Your task to perform on an android device: Open Google Chrome Image 0: 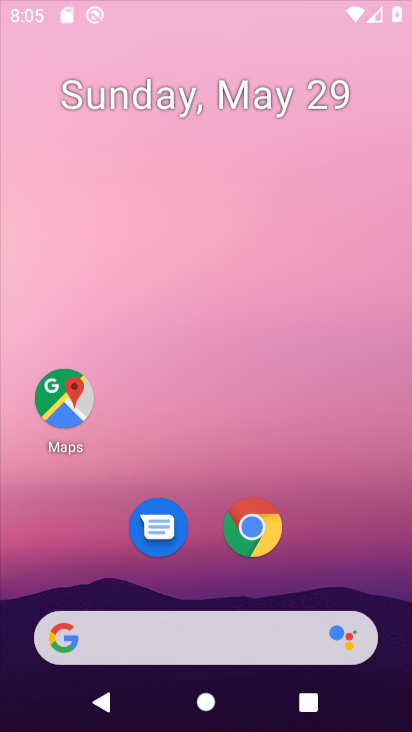
Step 0: press home button
Your task to perform on an android device: Open Google Chrome Image 1: 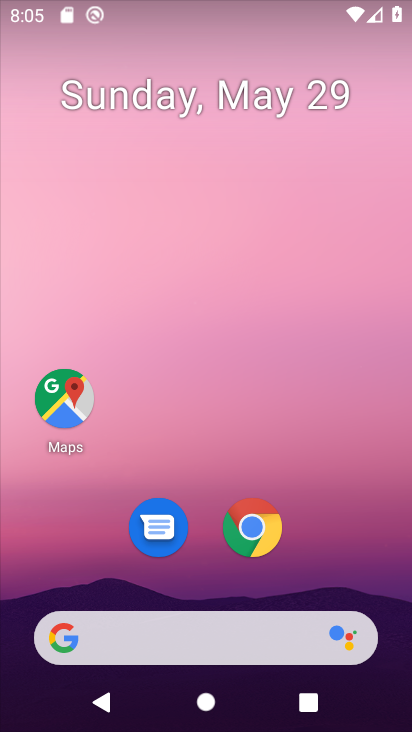
Step 1: click (249, 521)
Your task to perform on an android device: Open Google Chrome Image 2: 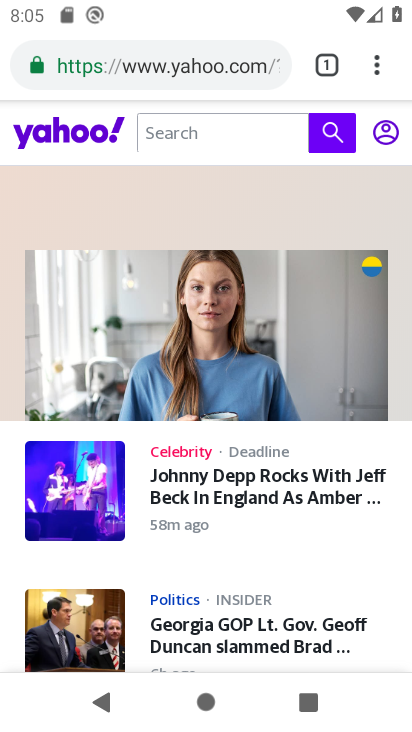
Step 2: press home button
Your task to perform on an android device: Open Google Chrome Image 3: 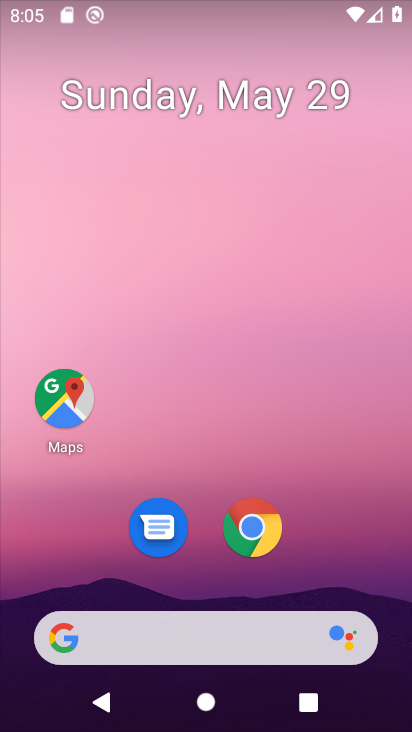
Step 3: click (247, 520)
Your task to perform on an android device: Open Google Chrome Image 4: 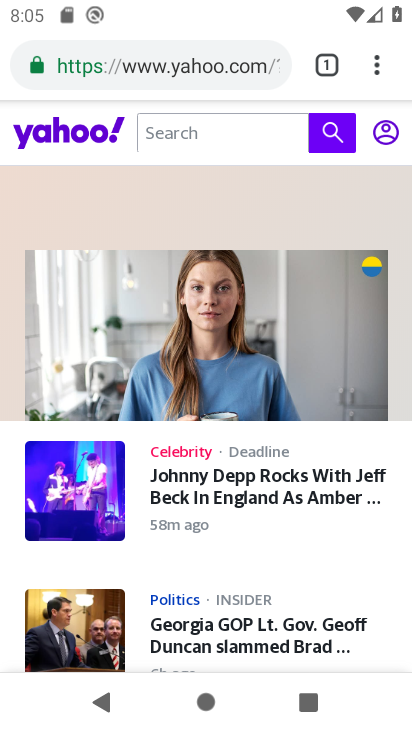
Step 4: click (326, 60)
Your task to perform on an android device: Open Google Chrome Image 5: 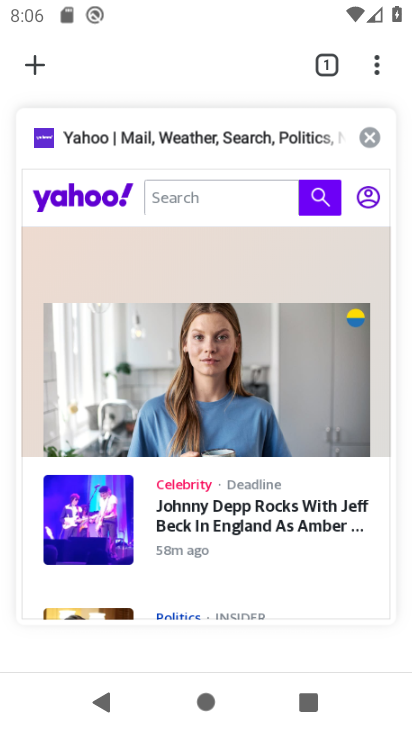
Step 5: click (370, 139)
Your task to perform on an android device: Open Google Chrome Image 6: 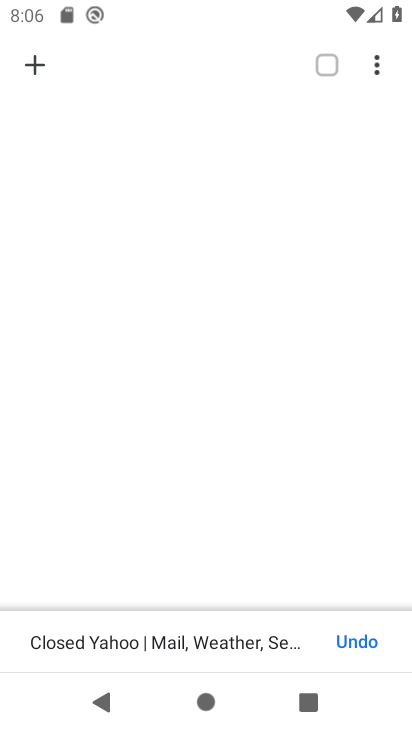
Step 6: click (39, 72)
Your task to perform on an android device: Open Google Chrome Image 7: 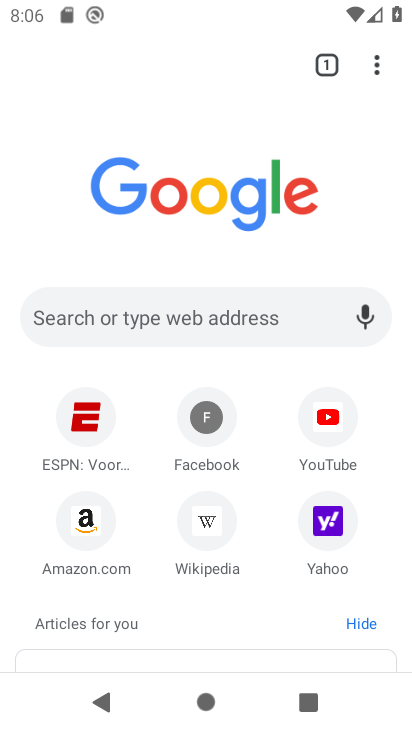
Step 7: task complete